Your task to perform on an android device: Is it going to rain today? Image 0: 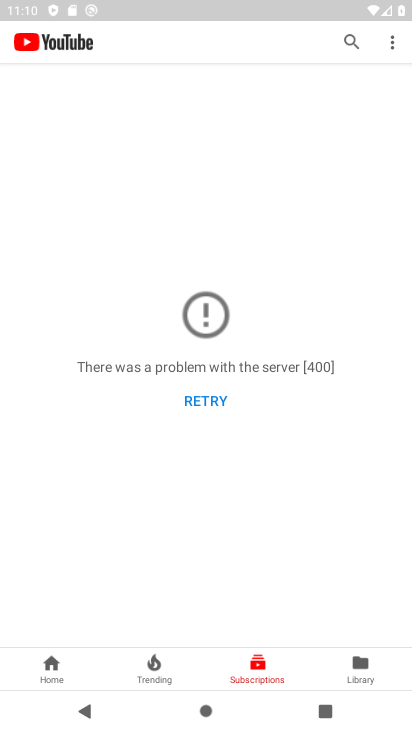
Step 0: press home button
Your task to perform on an android device: Is it going to rain today? Image 1: 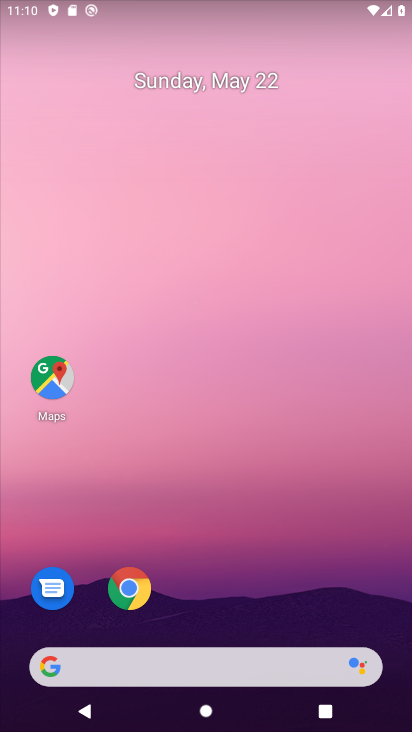
Step 1: click (184, 674)
Your task to perform on an android device: Is it going to rain today? Image 2: 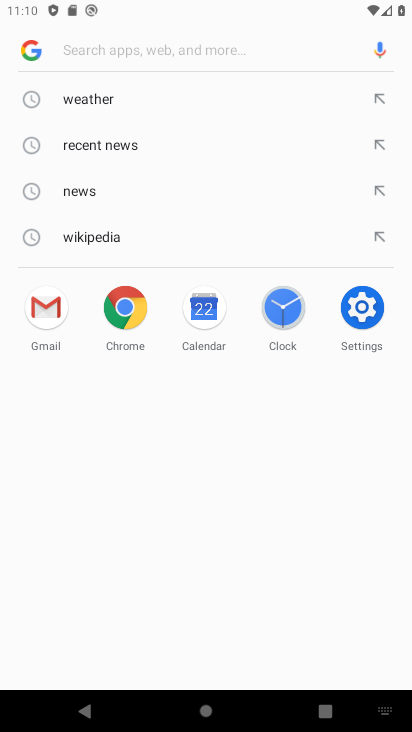
Step 2: click (90, 100)
Your task to perform on an android device: Is it going to rain today? Image 3: 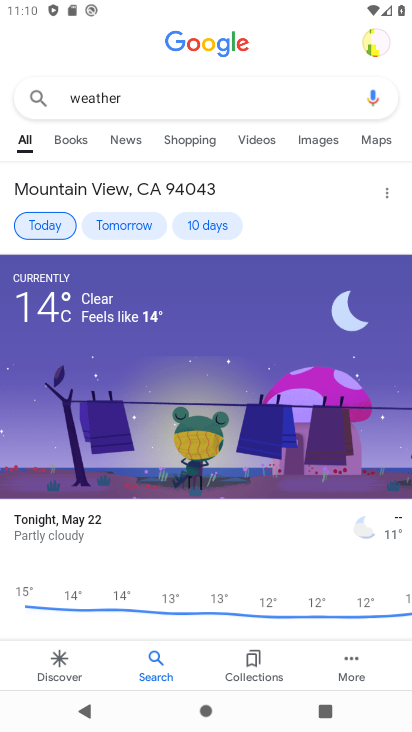
Step 3: task complete